Your task to perform on an android device: Go to accessibility settings Image 0: 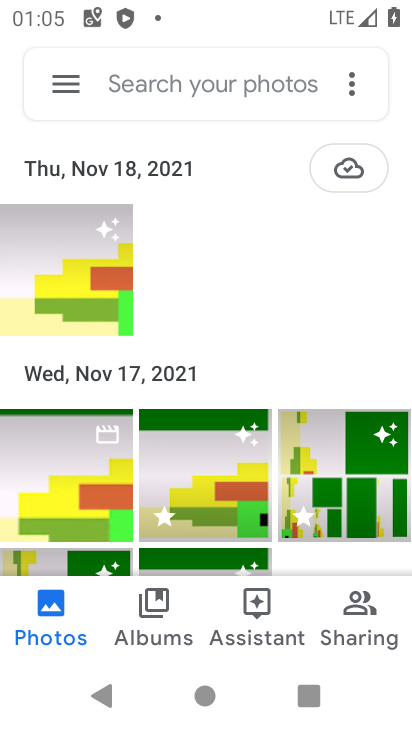
Step 0: press home button
Your task to perform on an android device: Go to accessibility settings Image 1: 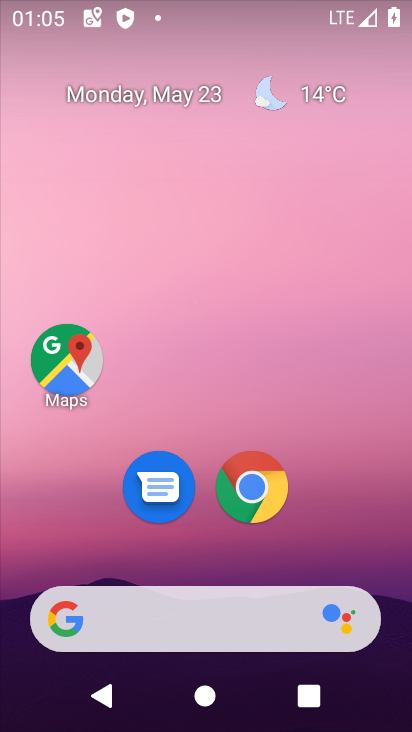
Step 1: drag from (399, 608) to (336, 61)
Your task to perform on an android device: Go to accessibility settings Image 2: 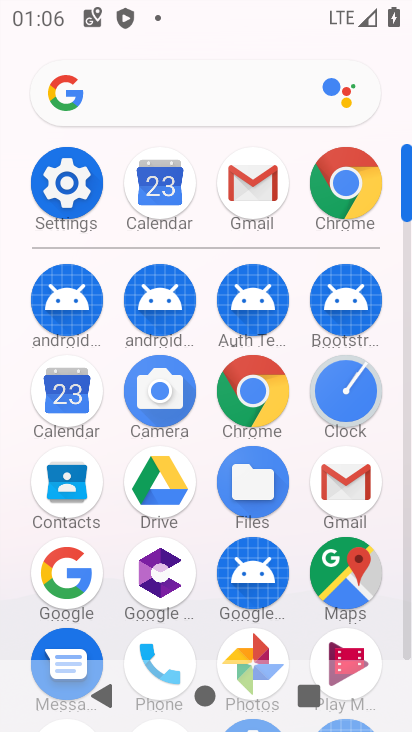
Step 2: click (407, 637)
Your task to perform on an android device: Go to accessibility settings Image 3: 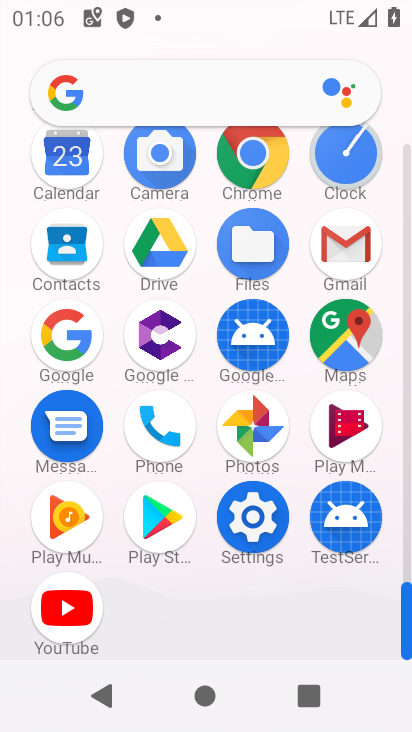
Step 3: click (253, 519)
Your task to perform on an android device: Go to accessibility settings Image 4: 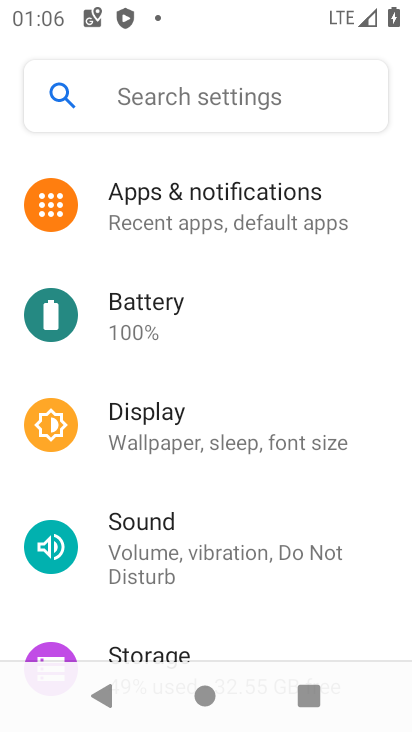
Step 4: drag from (355, 582) to (357, 170)
Your task to perform on an android device: Go to accessibility settings Image 5: 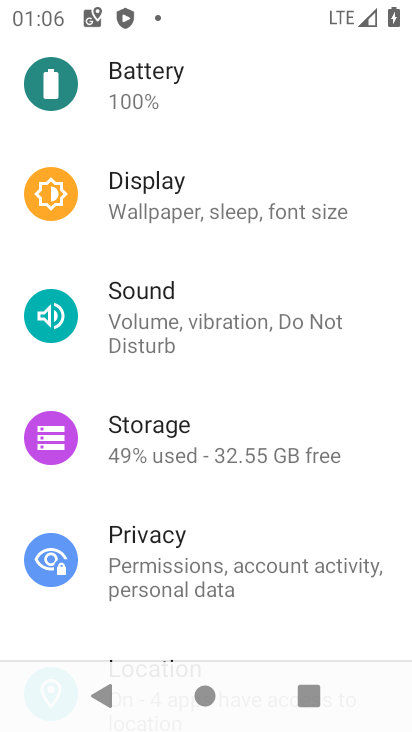
Step 5: drag from (356, 559) to (373, 139)
Your task to perform on an android device: Go to accessibility settings Image 6: 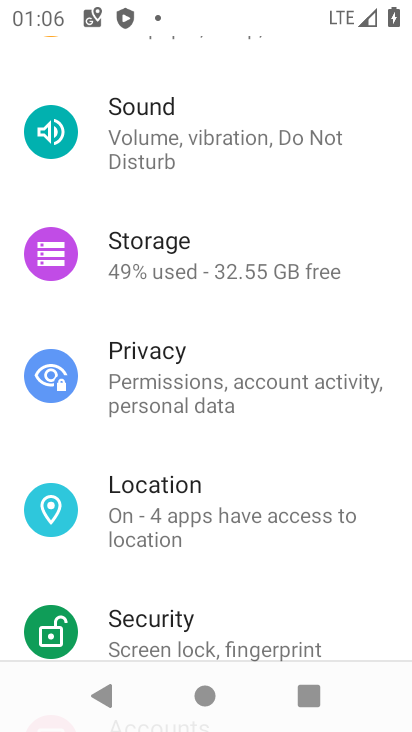
Step 6: drag from (355, 575) to (353, 152)
Your task to perform on an android device: Go to accessibility settings Image 7: 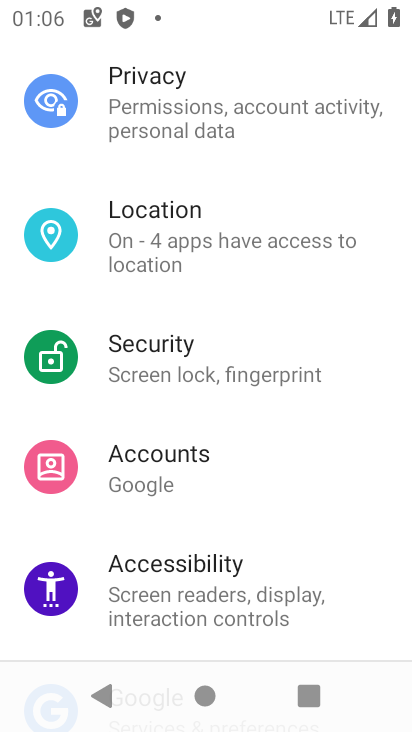
Step 7: click (150, 581)
Your task to perform on an android device: Go to accessibility settings Image 8: 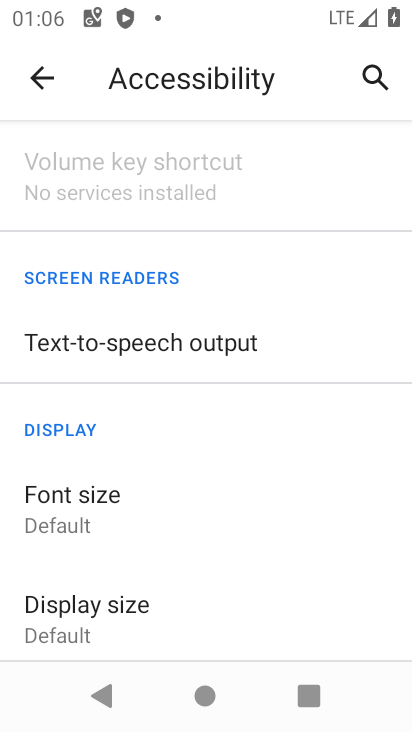
Step 8: drag from (285, 624) to (327, 245)
Your task to perform on an android device: Go to accessibility settings Image 9: 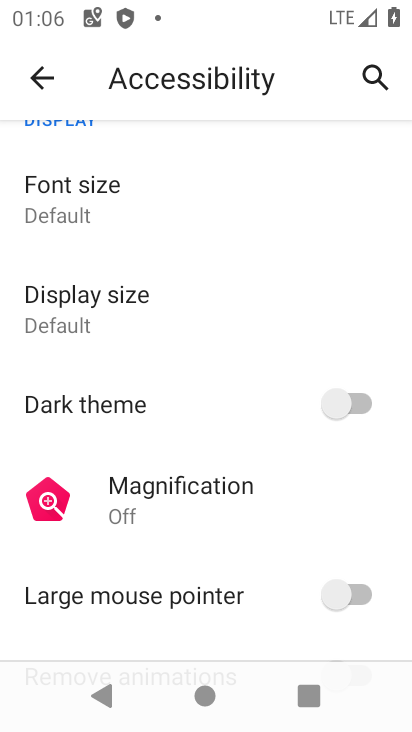
Step 9: drag from (297, 569) to (254, 98)
Your task to perform on an android device: Go to accessibility settings Image 10: 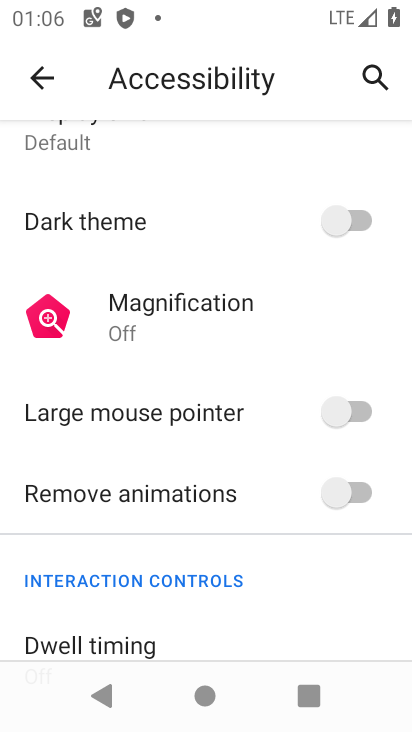
Step 10: drag from (284, 591) to (273, 97)
Your task to perform on an android device: Go to accessibility settings Image 11: 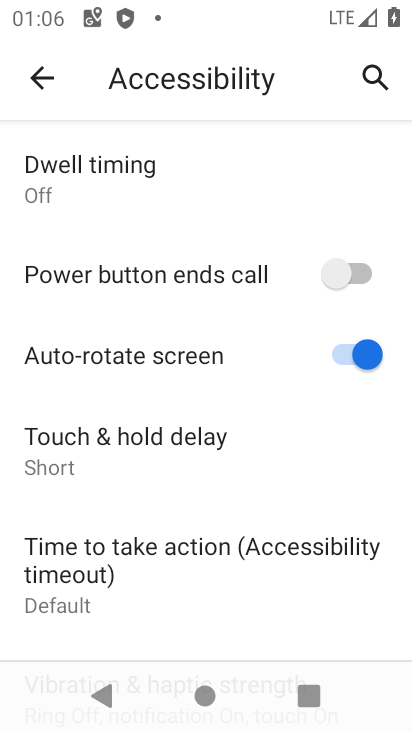
Step 11: click (261, 122)
Your task to perform on an android device: Go to accessibility settings Image 12: 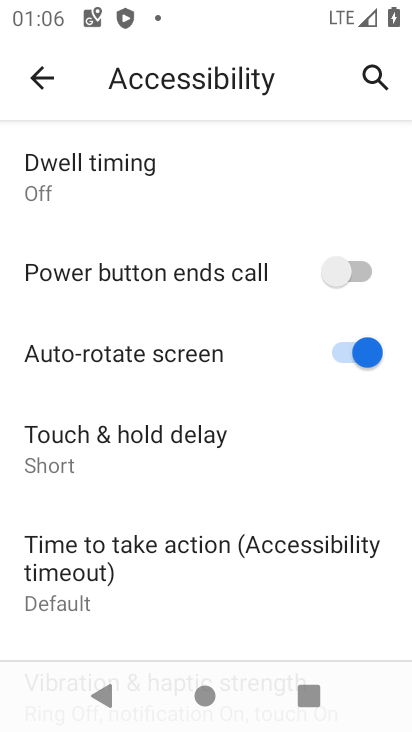
Step 12: task complete